Your task to perform on an android device: check battery use Image 0: 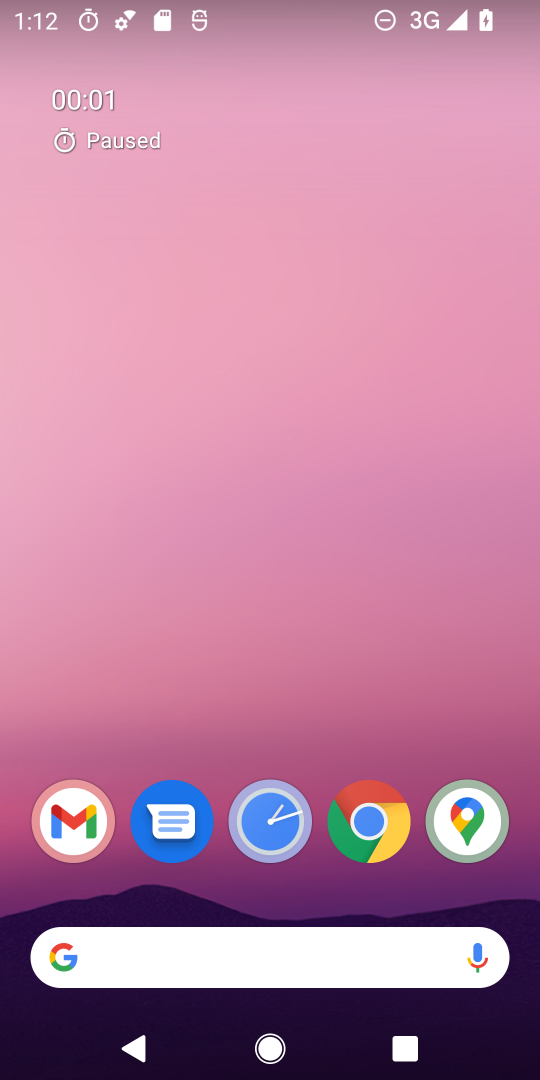
Step 0: drag from (331, 891) to (212, 113)
Your task to perform on an android device: check battery use Image 1: 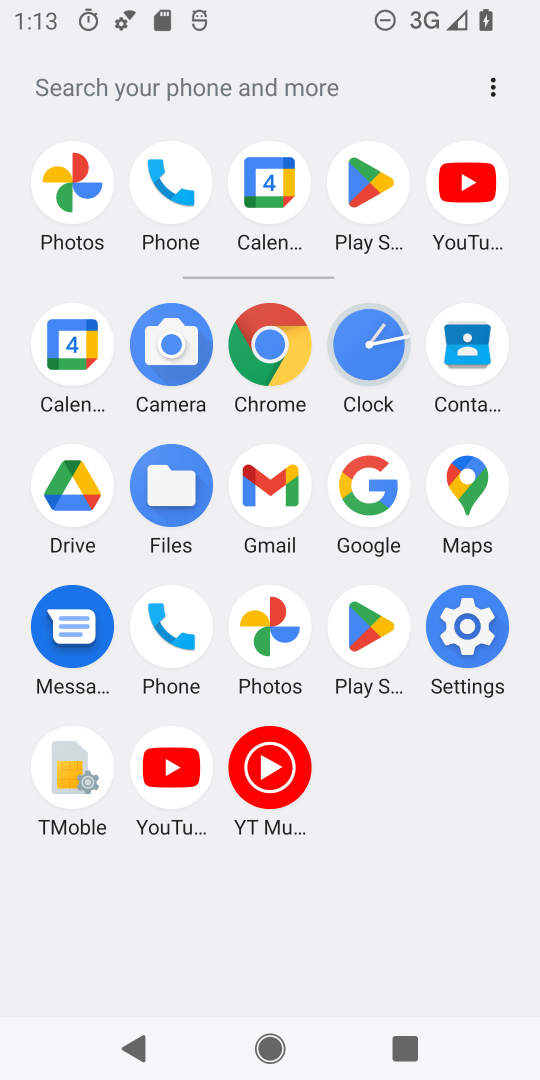
Step 1: click (493, 640)
Your task to perform on an android device: check battery use Image 2: 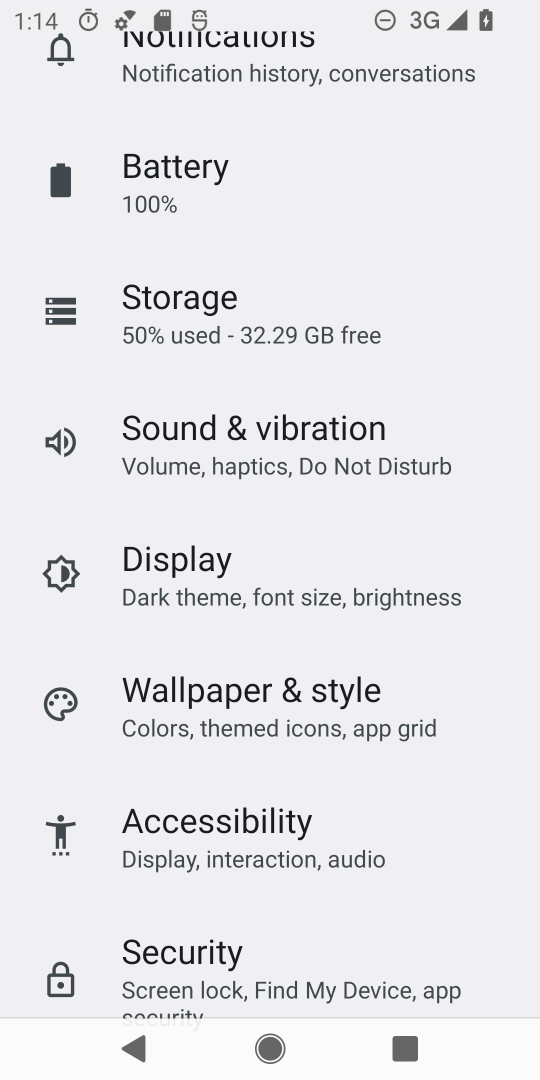
Step 2: click (200, 193)
Your task to perform on an android device: check battery use Image 3: 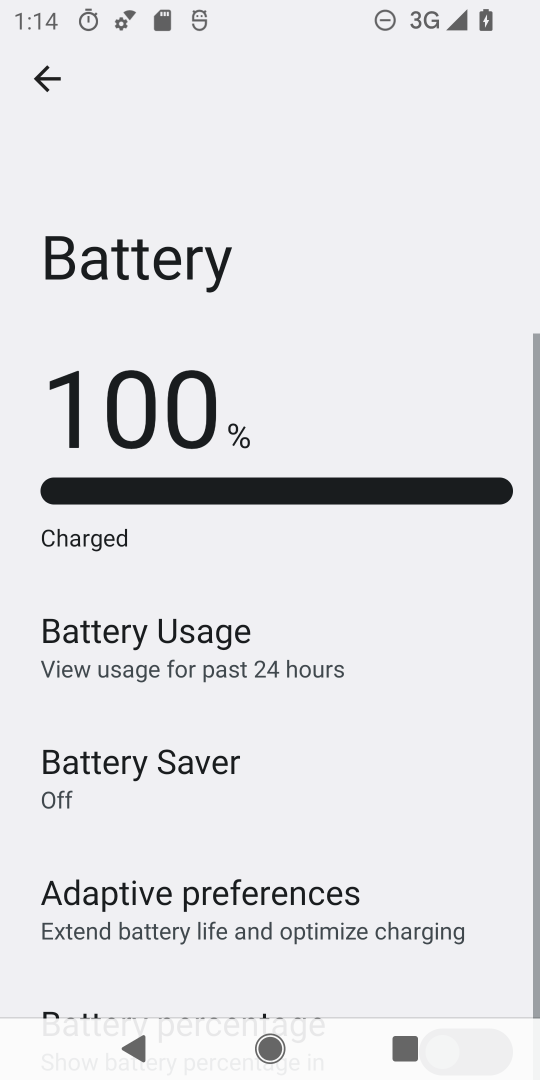
Step 3: click (172, 645)
Your task to perform on an android device: check battery use Image 4: 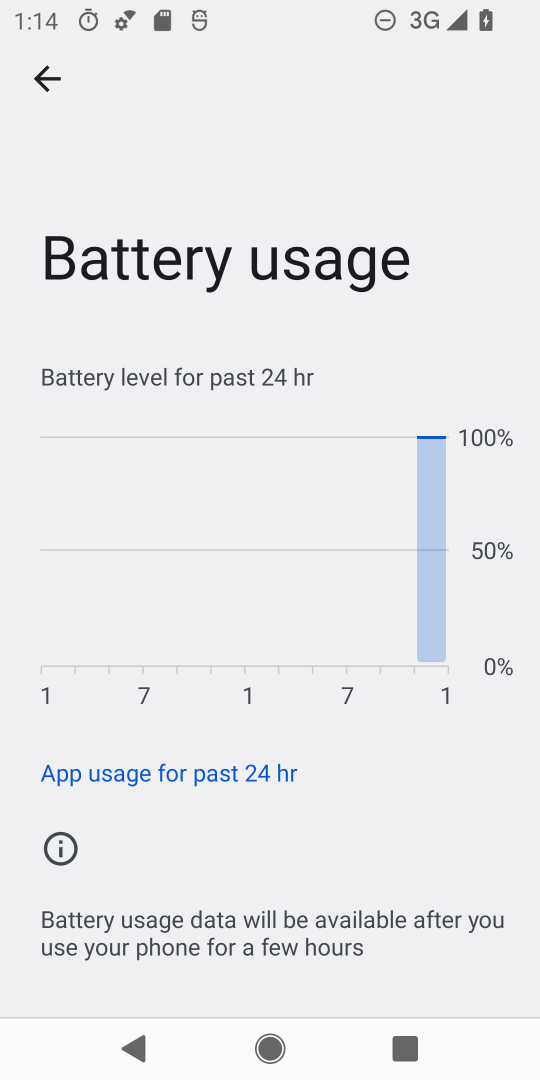
Step 4: task complete